Your task to perform on an android device: Open Youtube and go to the subscriptions tab Image 0: 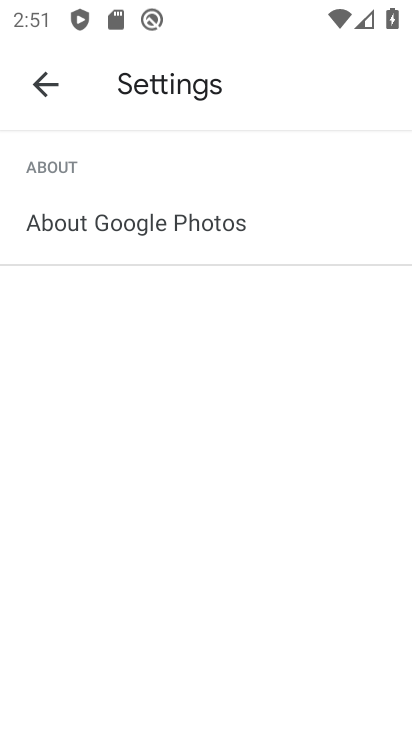
Step 0: press home button
Your task to perform on an android device: Open Youtube and go to the subscriptions tab Image 1: 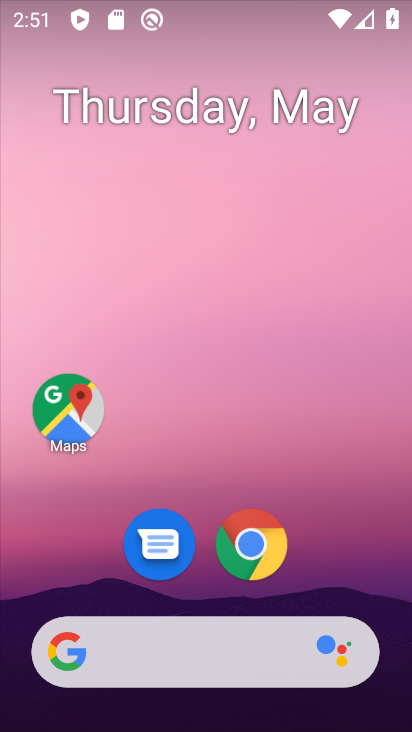
Step 1: drag from (171, 586) to (343, 75)
Your task to perform on an android device: Open Youtube and go to the subscriptions tab Image 2: 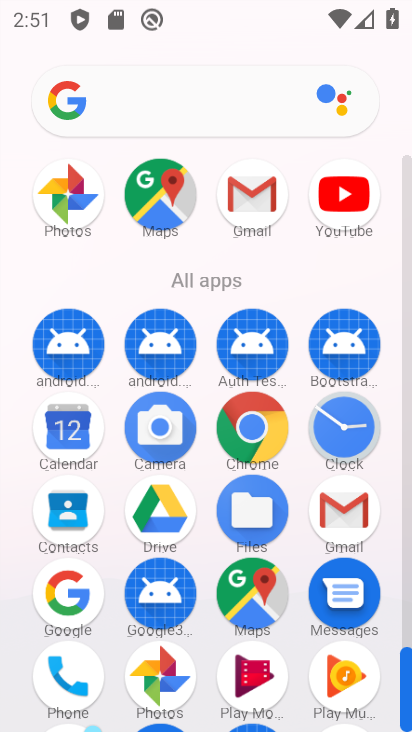
Step 2: click (356, 209)
Your task to perform on an android device: Open Youtube and go to the subscriptions tab Image 3: 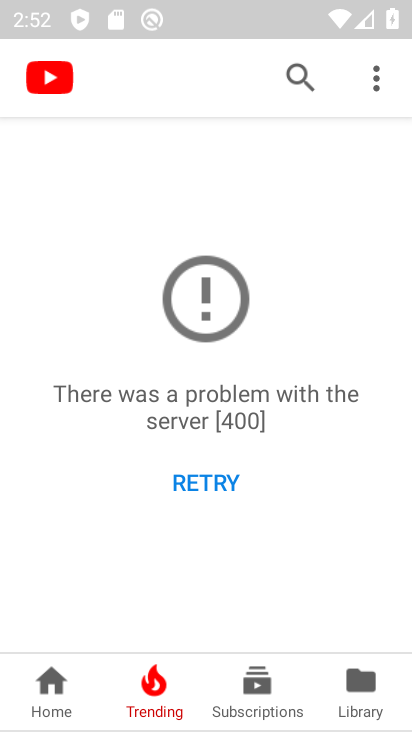
Step 3: click (261, 696)
Your task to perform on an android device: Open Youtube and go to the subscriptions tab Image 4: 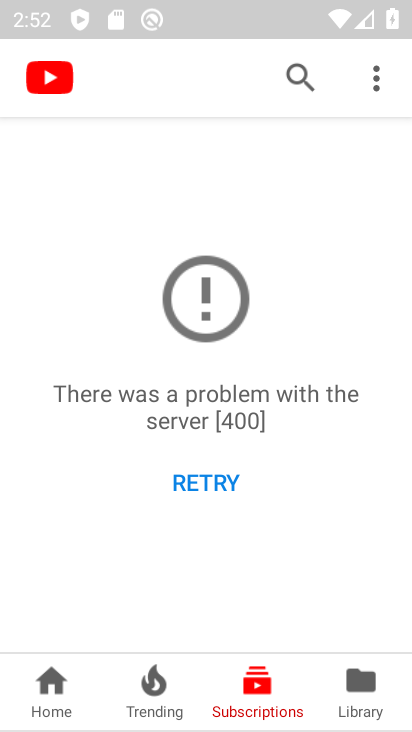
Step 4: task complete